Your task to perform on an android device: find which apps use the phone's location Image 0: 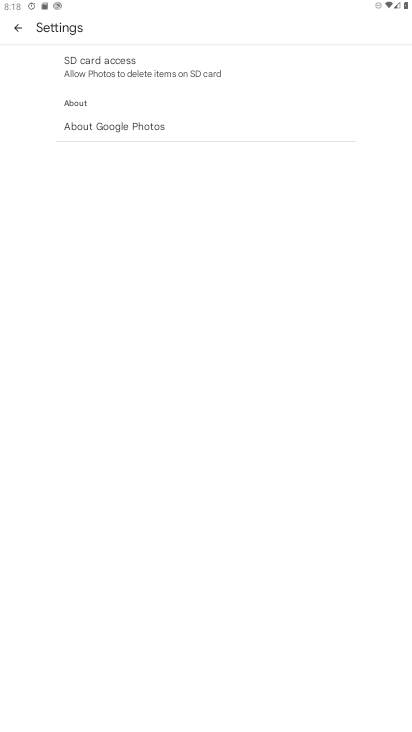
Step 0: press home button
Your task to perform on an android device: find which apps use the phone's location Image 1: 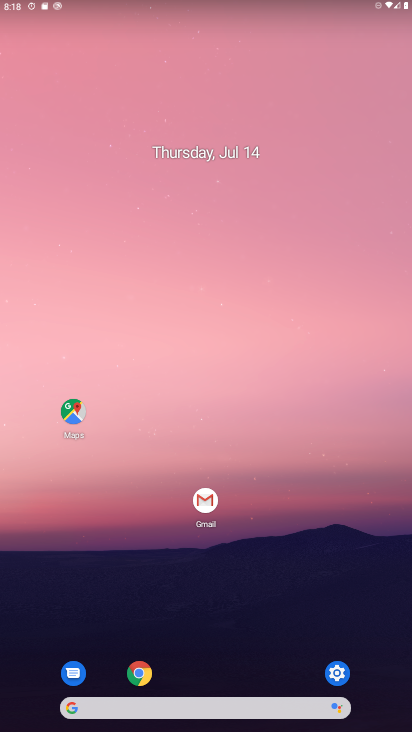
Step 1: click (338, 676)
Your task to perform on an android device: find which apps use the phone's location Image 2: 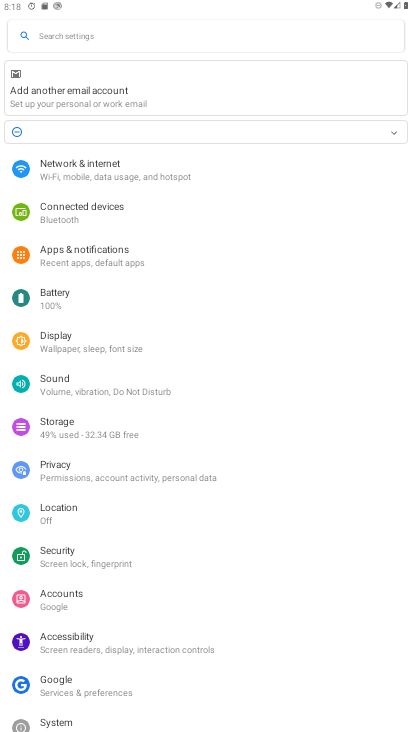
Step 2: click (102, 506)
Your task to perform on an android device: find which apps use the phone's location Image 3: 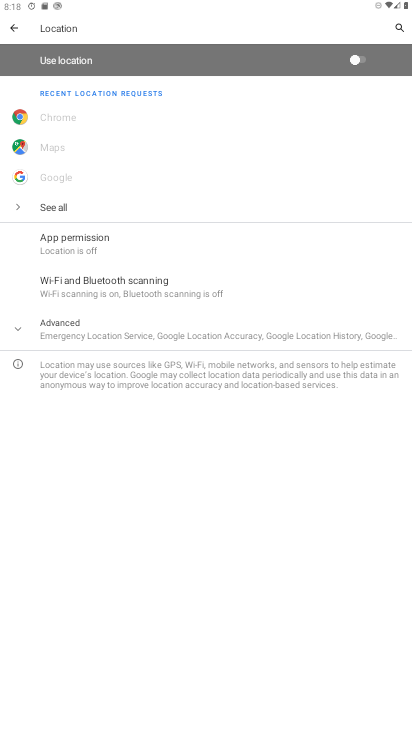
Step 3: click (361, 61)
Your task to perform on an android device: find which apps use the phone's location Image 4: 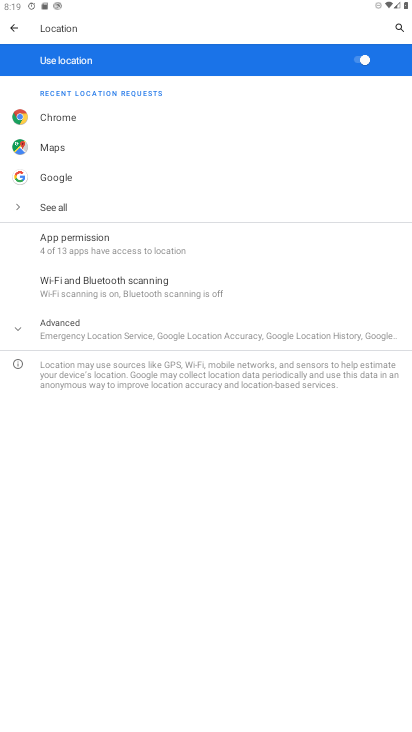
Step 4: task complete